Your task to perform on an android device: What is the recent news? Image 0: 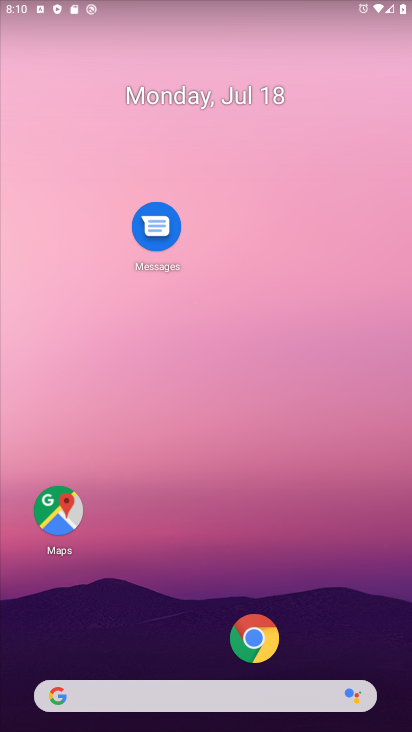
Step 0: press home button
Your task to perform on an android device: What is the recent news? Image 1: 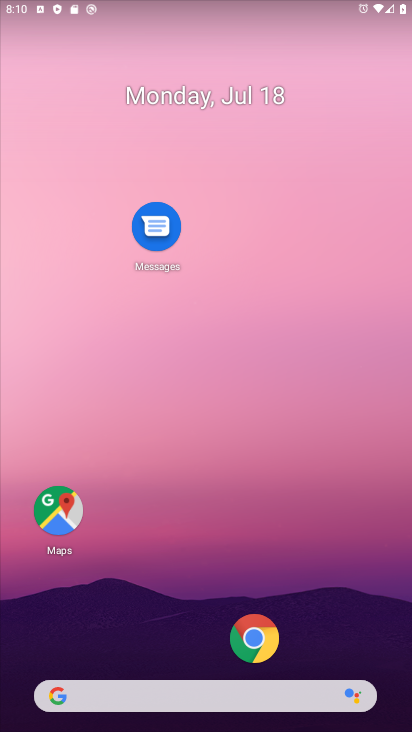
Step 1: task complete